Your task to perform on an android device: open app "McDonald's" (install if not already installed) and enter user name: "copes@yahoo.com" and password: "Rhenish" Image 0: 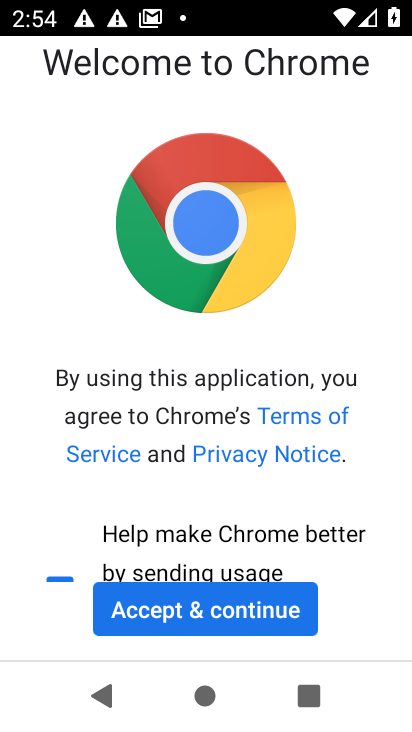
Step 0: press home button
Your task to perform on an android device: open app "McDonald's" (install if not already installed) and enter user name: "copes@yahoo.com" and password: "Rhenish" Image 1: 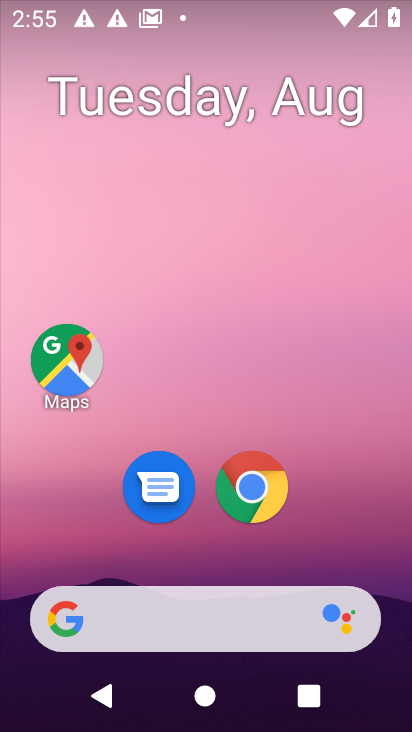
Step 1: drag from (146, 616) to (244, 117)
Your task to perform on an android device: open app "McDonald's" (install if not already installed) and enter user name: "copes@yahoo.com" and password: "Rhenish" Image 2: 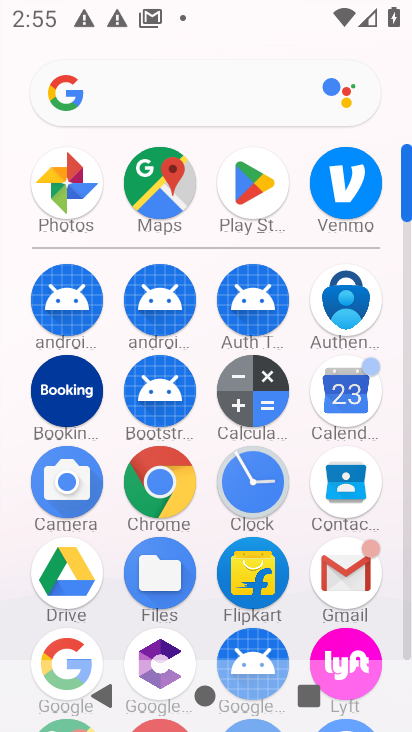
Step 2: click (257, 190)
Your task to perform on an android device: open app "McDonald's" (install if not already installed) and enter user name: "copes@yahoo.com" and password: "Rhenish" Image 3: 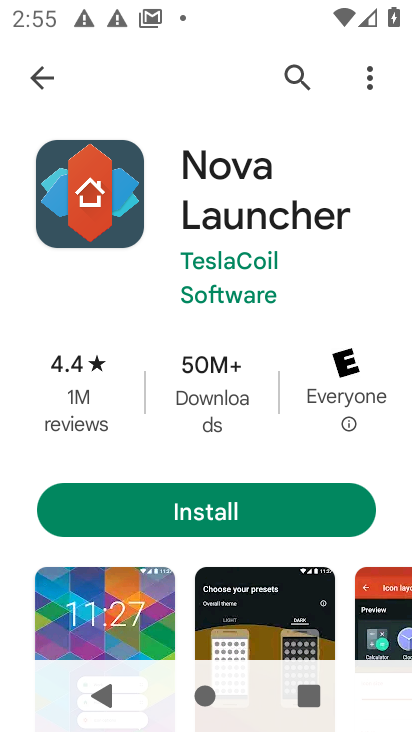
Step 3: press back button
Your task to perform on an android device: open app "McDonald's" (install if not already installed) and enter user name: "copes@yahoo.com" and password: "Rhenish" Image 4: 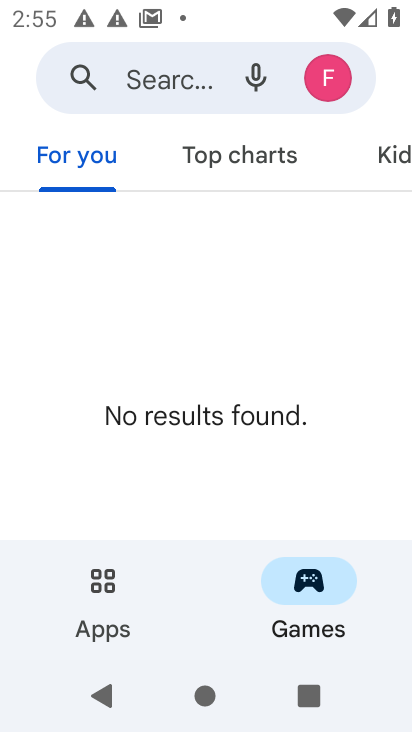
Step 4: click (150, 81)
Your task to perform on an android device: open app "McDonald's" (install if not already installed) and enter user name: "copes@yahoo.com" and password: "Rhenish" Image 5: 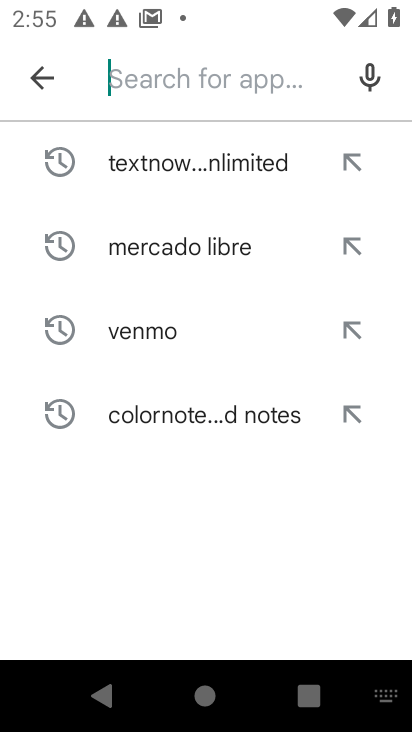
Step 5: type "McDonald's "
Your task to perform on an android device: open app "McDonald's" (install if not already installed) and enter user name: "copes@yahoo.com" and password: "Rhenish" Image 6: 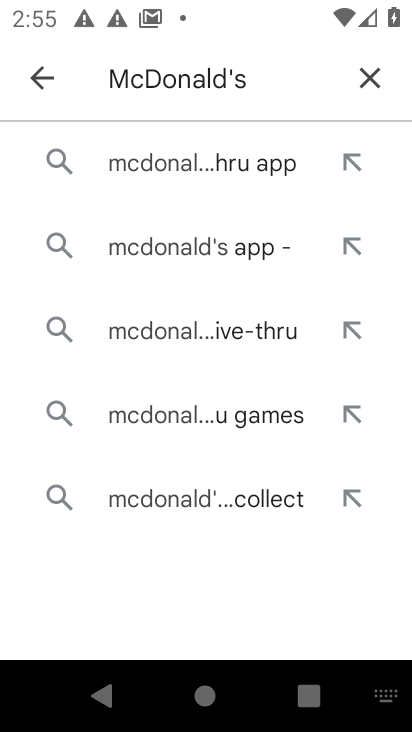
Step 6: click (189, 170)
Your task to perform on an android device: open app "McDonald's" (install if not already installed) and enter user name: "copes@yahoo.com" and password: "Rhenish" Image 7: 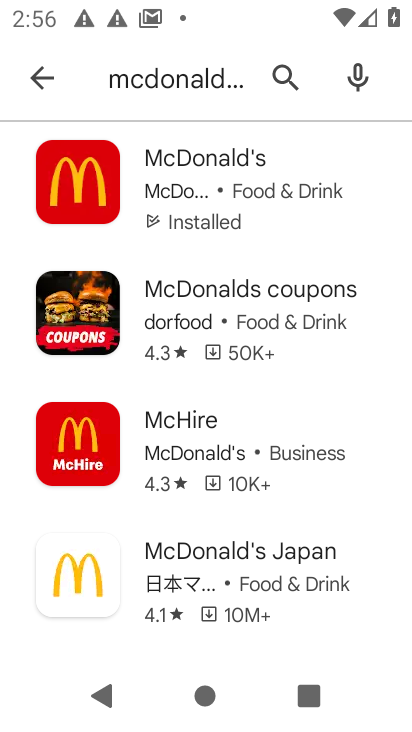
Step 7: click (207, 169)
Your task to perform on an android device: open app "McDonald's" (install if not already installed) and enter user name: "copes@yahoo.com" and password: "Rhenish" Image 8: 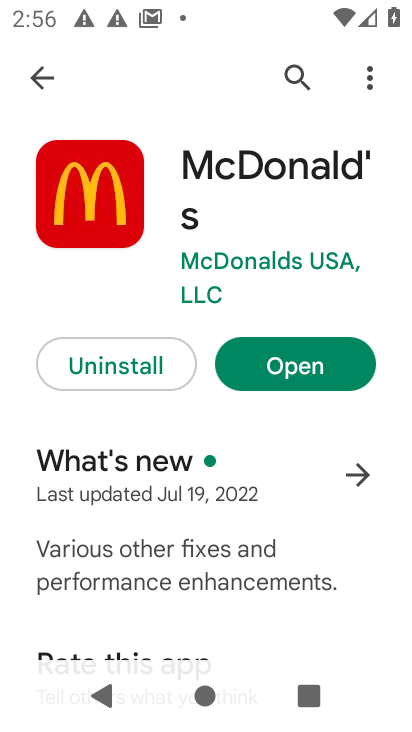
Step 8: click (303, 373)
Your task to perform on an android device: open app "McDonald's" (install if not already installed) and enter user name: "copes@yahoo.com" and password: "Rhenish" Image 9: 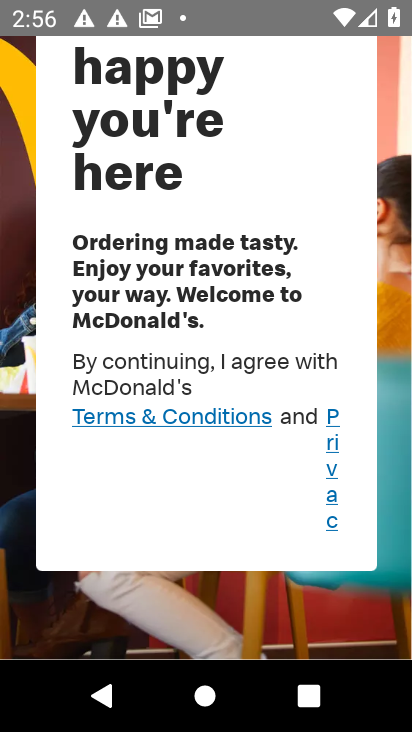
Step 9: drag from (255, 476) to (284, 250)
Your task to perform on an android device: open app "McDonald's" (install if not already installed) and enter user name: "copes@yahoo.com" and password: "Rhenish" Image 10: 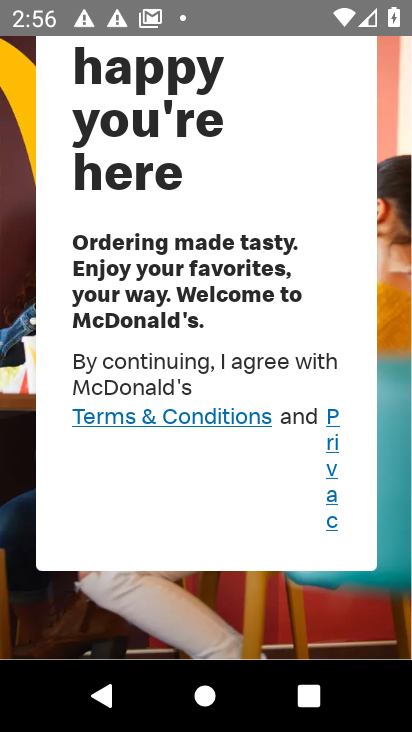
Step 10: drag from (277, 228) to (261, 536)
Your task to perform on an android device: open app "McDonald's" (install if not already installed) and enter user name: "copes@yahoo.com" and password: "Rhenish" Image 11: 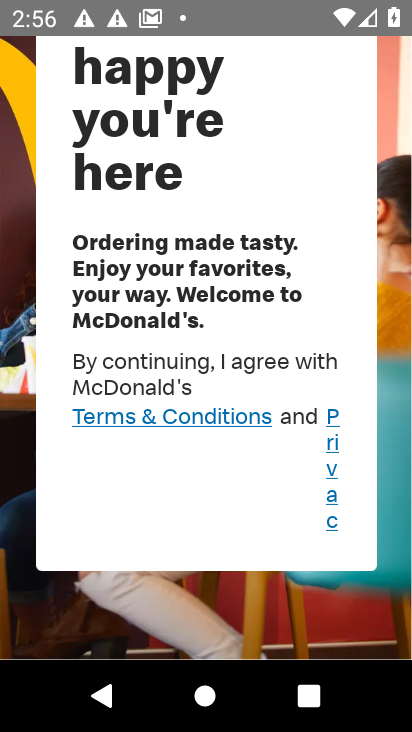
Step 11: drag from (238, 521) to (289, 152)
Your task to perform on an android device: open app "McDonald's" (install if not already installed) and enter user name: "copes@yahoo.com" and password: "Rhenish" Image 12: 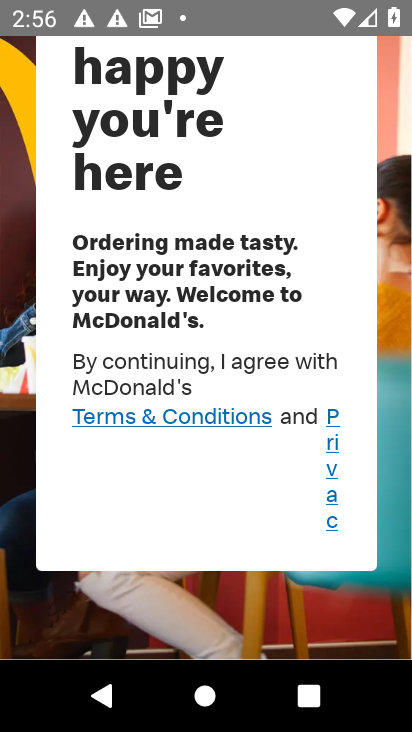
Step 12: drag from (285, 127) to (260, 489)
Your task to perform on an android device: open app "McDonald's" (install if not already installed) and enter user name: "copes@yahoo.com" and password: "Rhenish" Image 13: 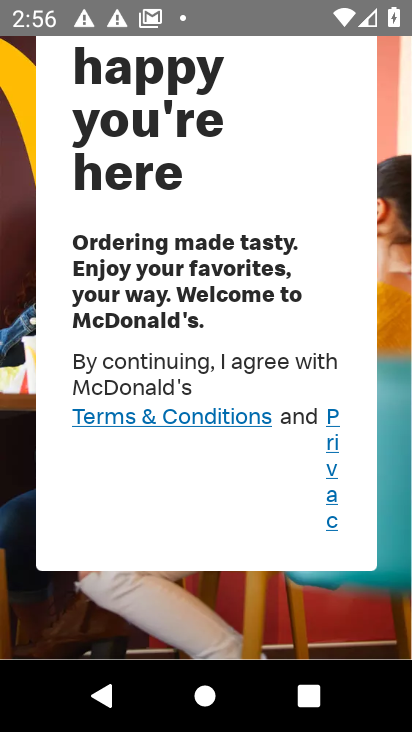
Step 13: drag from (231, 125) to (226, 507)
Your task to perform on an android device: open app "McDonald's" (install if not already installed) and enter user name: "copes@yahoo.com" and password: "Rhenish" Image 14: 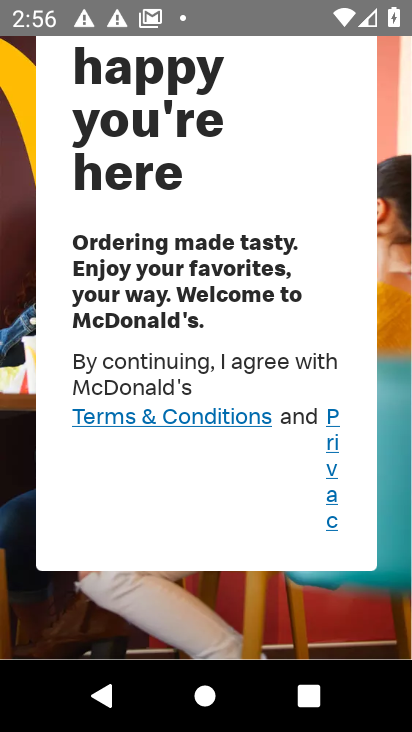
Step 14: drag from (212, 629) to (297, 301)
Your task to perform on an android device: open app "McDonald's" (install if not already installed) and enter user name: "copes@yahoo.com" and password: "Rhenish" Image 15: 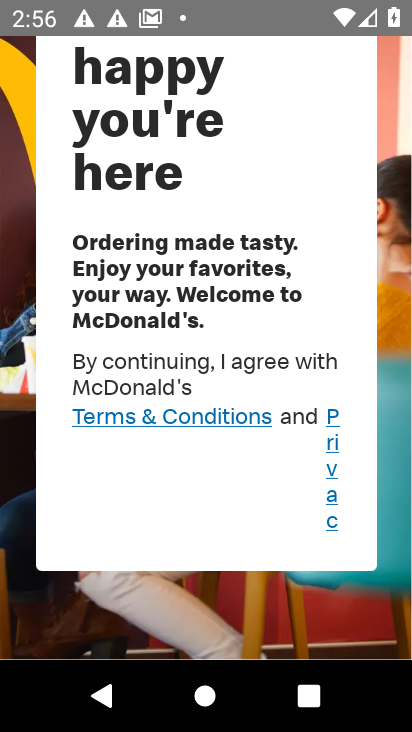
Step 15: press back button
Your task to perform on an android device: open app "McDonald's" (install if not already installed) and enter user name: "copes@yahoo.com" and password: "Rhenish" Image 16: 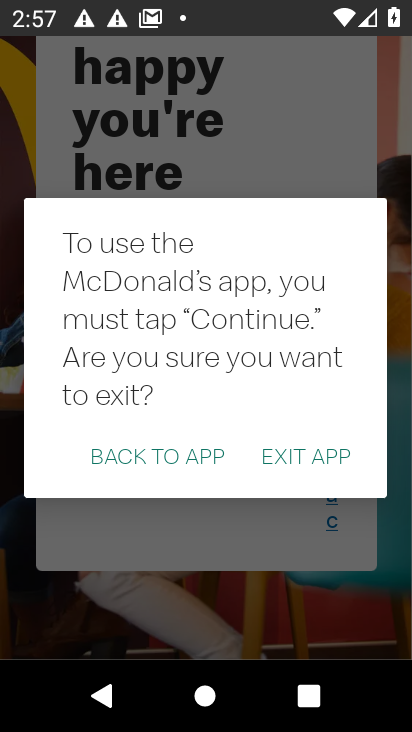
Step 16: press back button
Your task to perform on an android device: open app "McDonald's" (install if not already installed) and enter user name: "copes@yahoo.com" and password: "Rhenish" Image 17: 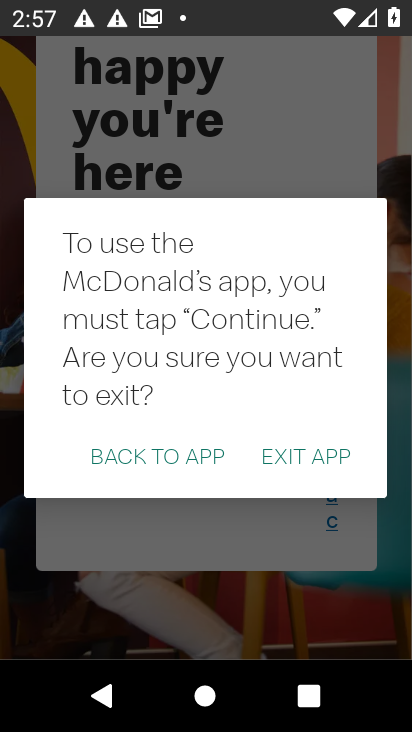
Step 17: click (180, 459)
Your task to perform on an android device: open app "McDonald's" (install if not already installed) and enter user name: "copes@yahoo.com" and password: "Rhenish" Image 18: 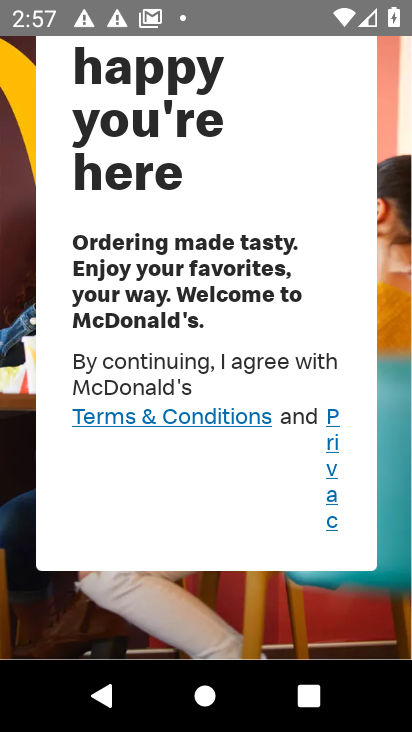
Step 18: press back button
Your task to perform on an android device: open app "McDonald's" (install if not already installed) and enter user name: "copes@yahoo.com" and password: "Rhenish" Image 19: 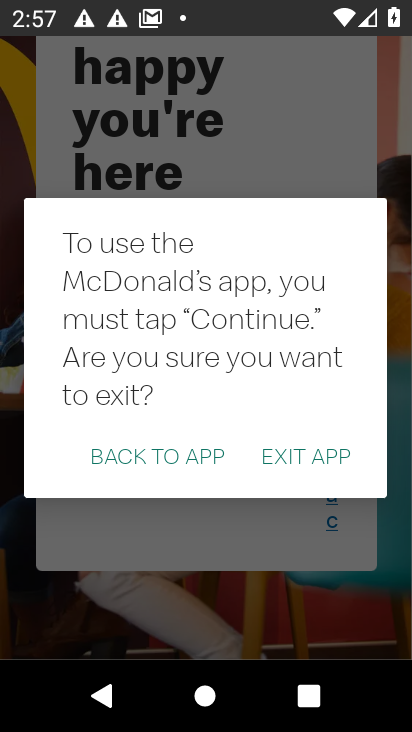
Step 19: click (282, 453)
Your task to perform on an android device: open app "McDonald's" (install if not already installed) and enter user name: "copes@yahoo.com" and password: "Rhenish" Image 20: 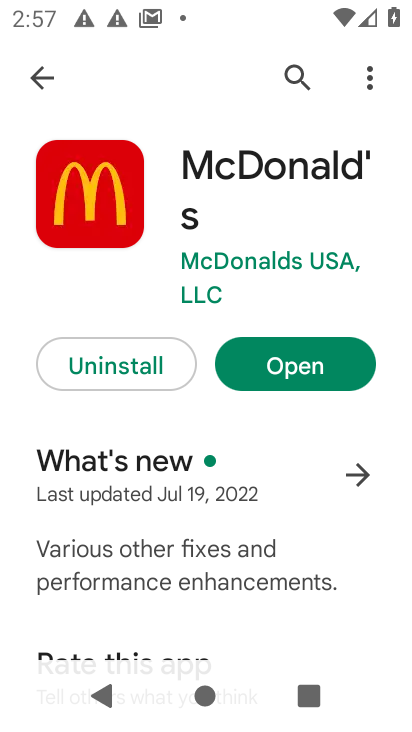
Step 20: click (288, 355)
Your task to perform on an android device: open app "McDonald's" (install if not already installed) and enter user name: "copes@yahoo.com" and password: "Rhenish" Image 21: 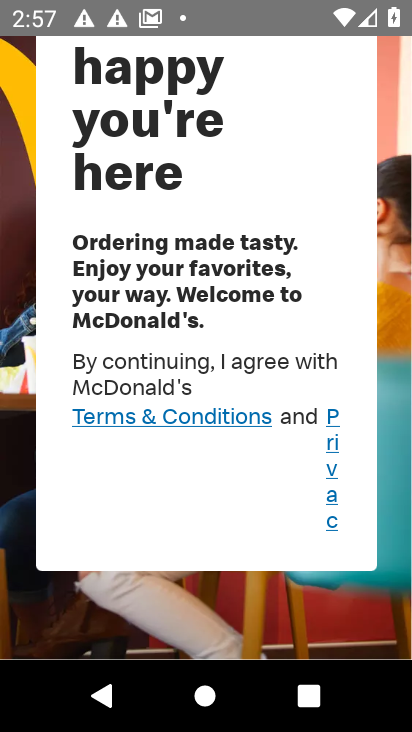
Step 21: task complete